Your task to perform on an android device: Open the phone app and click the voicemail tab. Image 0: 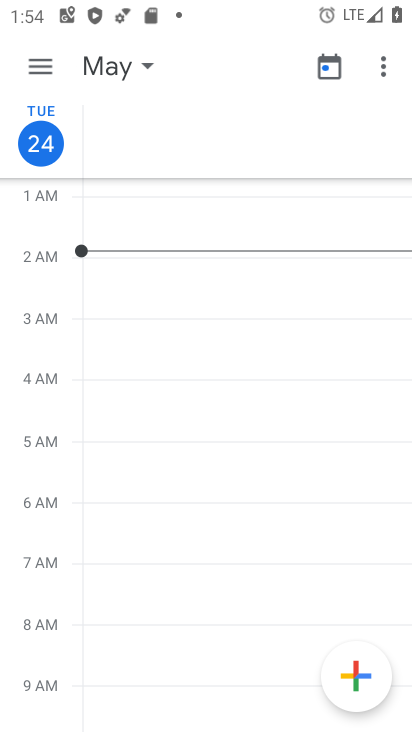
Step 0: press home button
Your task to perform on an android device: Open the phone app and click the voicemail tab. Image 1: 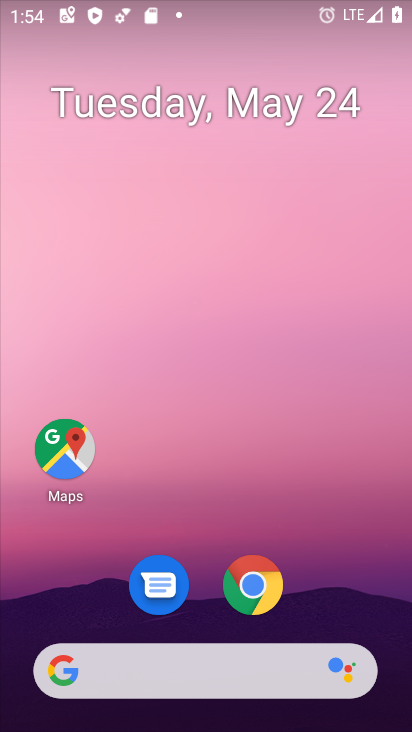
Step 1: drag from (218, 479) to (232, 47)
Your task to perform on an android device: Open the phone app and click the voicemail tab. Image 2: 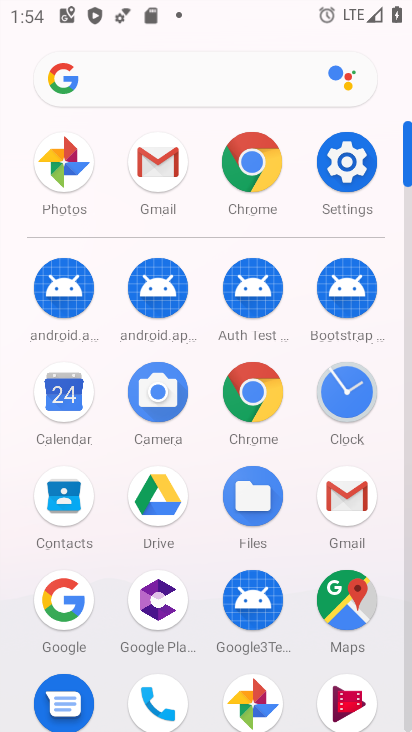
Step 2: click (174, 681)
Your task to perform on an android device: Open the phone app and click the voicemail tab. Image 3: 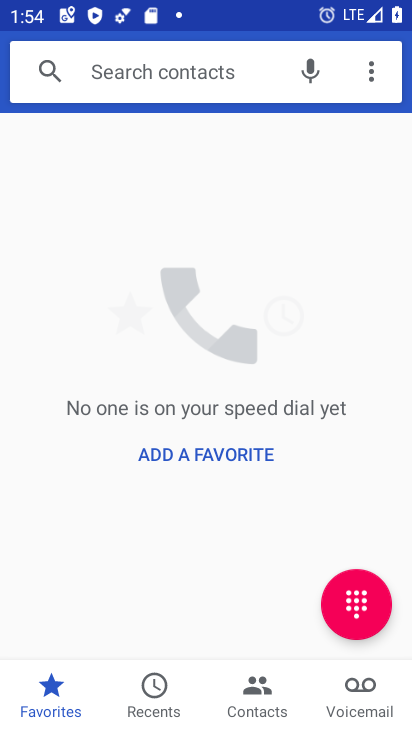
Step 3: click (374, 702)
Your task to perform on an android device: Open the phone app and click the voicemail tab. Image 4: 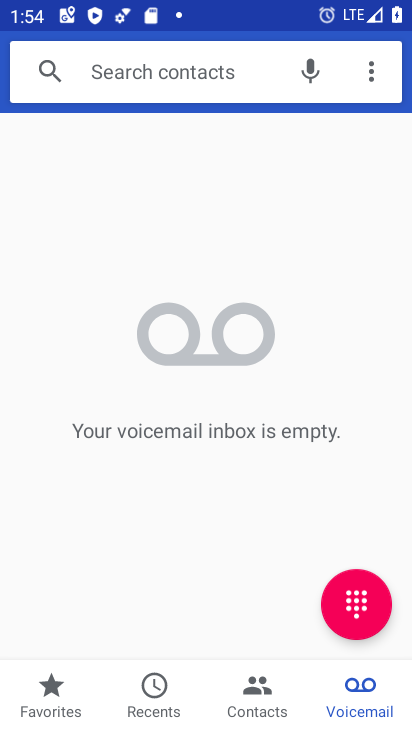
Step 4: task complete